Your task to perform on an android device: all mails in gmail Image 0: 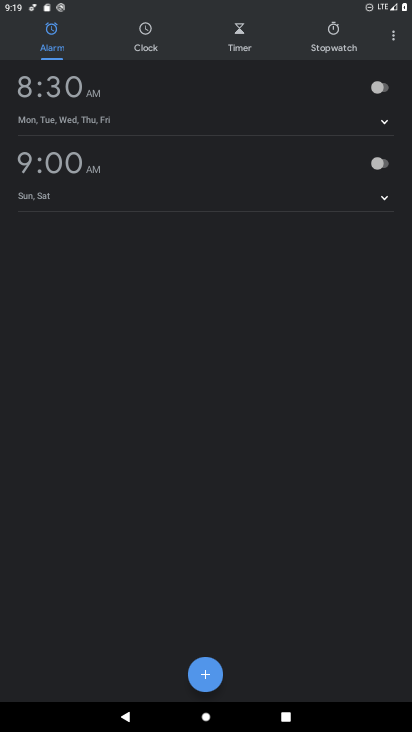
Step 0: press home button
Your task to perform on an android device: all mails in gmail Image 1: 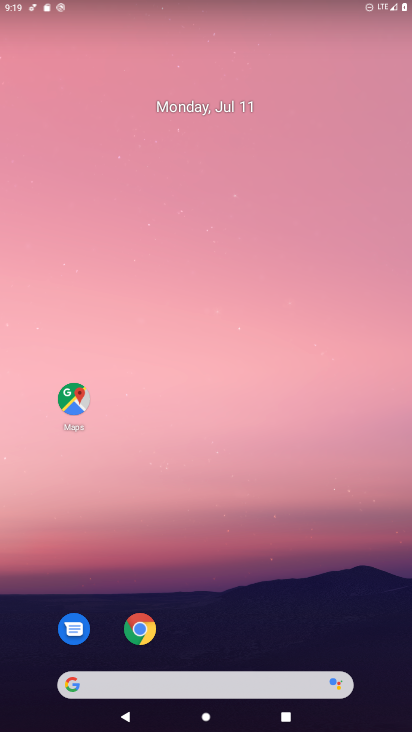
Step 1: drag from (200, 628) to (195, 263)
Your task to perform on an android device: all mails in gmail Image 2: 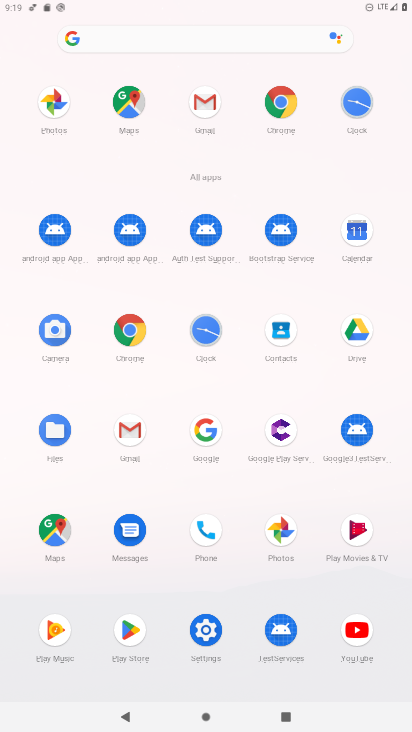
Step 2: click (208, 112)
Your task to perform on an android device: all mails in gmail Image 3: 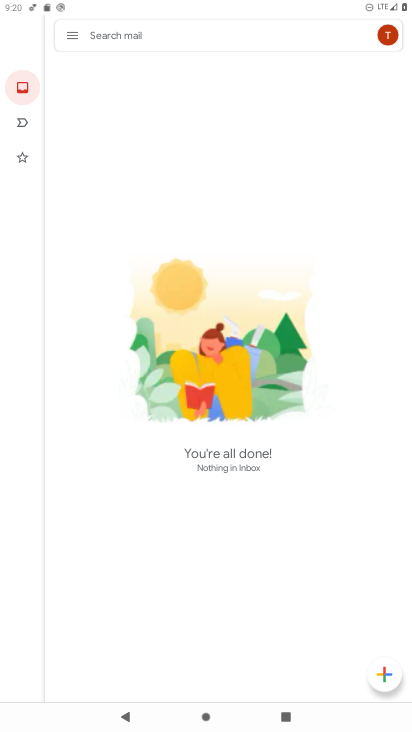
Step 3: click (74, 41)
Your task to perform on an android device: all mails in gmail Image 4: 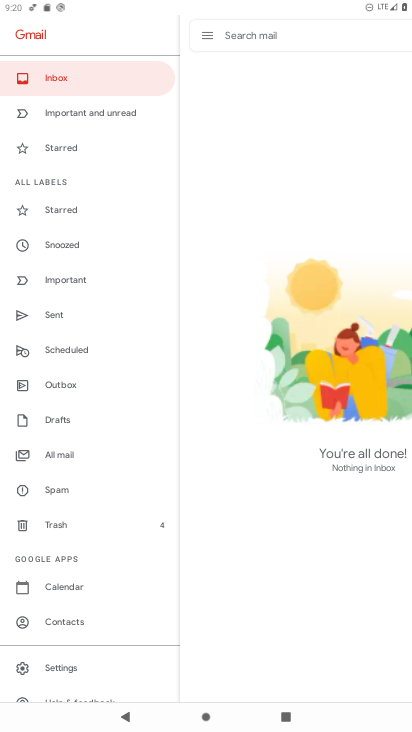
Step 4: click (76, 453)
Your task to perform on an android device: all mails in gmail Image 5: 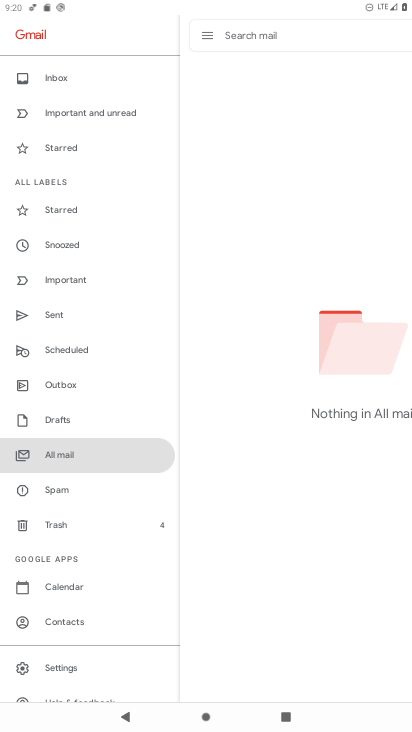
Step 5: task complete